Your task to perform on an android device: check storage Image 0: 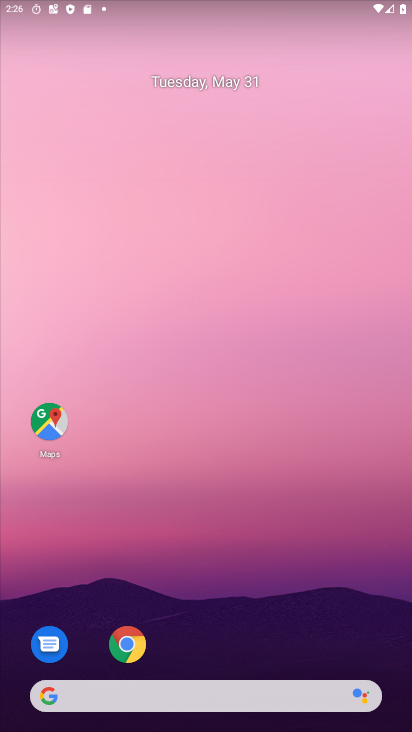
Step 0: drag from (395, 692) to (361, 162)
Your task to perform on an android device: check storage Image 1: 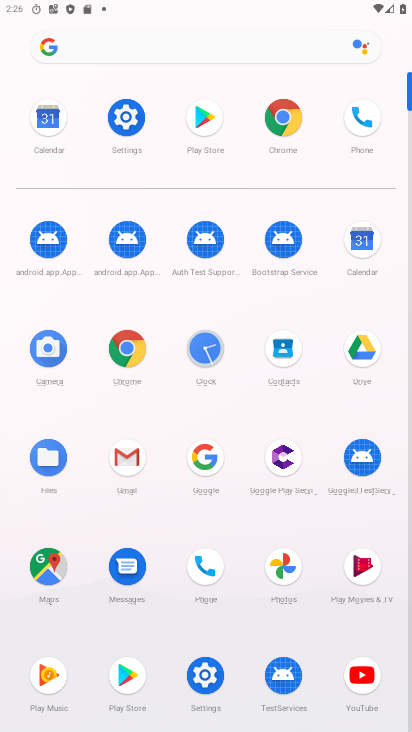
Step 1: click (201, 672)
Your task to perform on an android device: check storage Image 2: 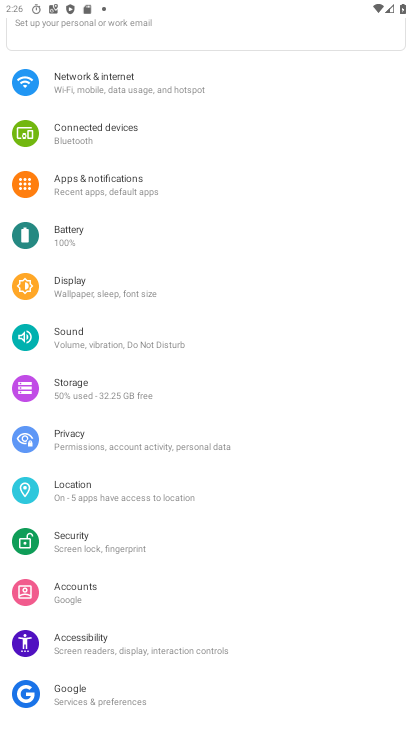
Step 2: click (48, 381)
Your task to perform on an android device: check storage Image 3: 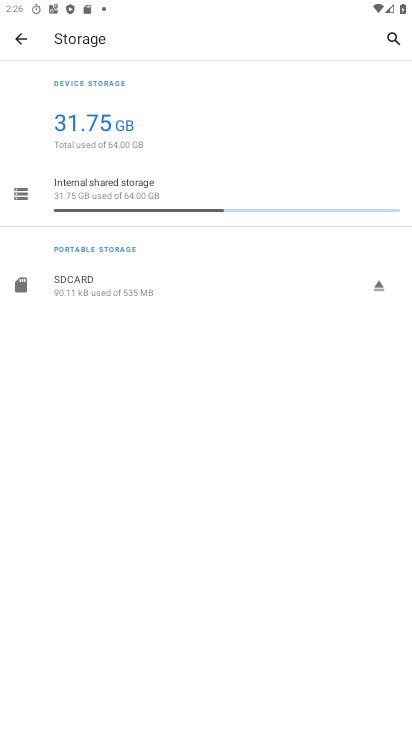
Step 3: task complete